Your task to perform on an android device: turn on javascript in the chrome app Image 0: 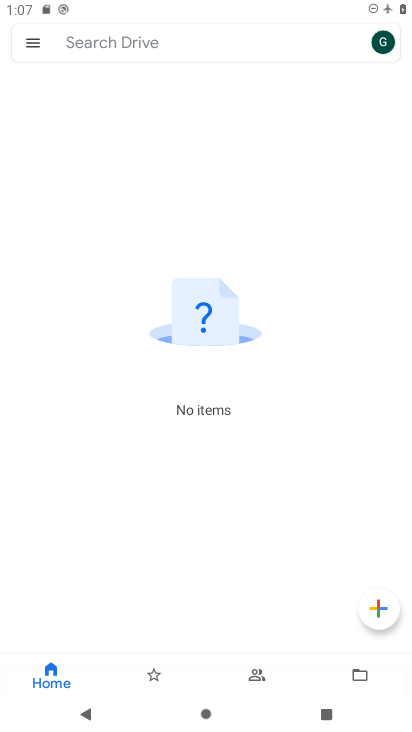
Step 0: press home button
Your task to perform on an android device: turn on javascript in the chrome app Image 1: 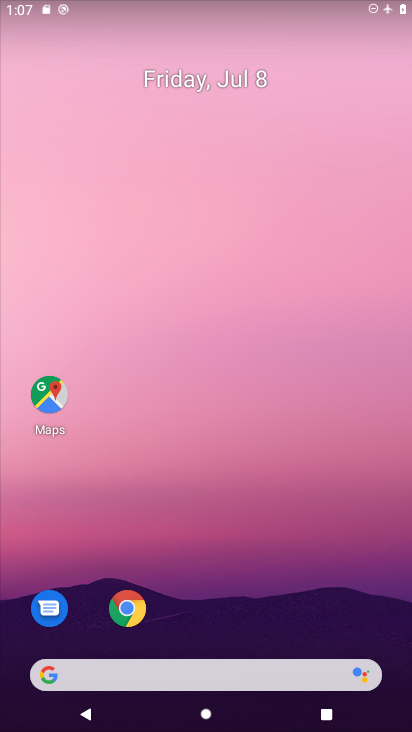
Step 1: click (147, 590)
Your task to perform on an android device: turn on javascript in the chrome app Image 2: 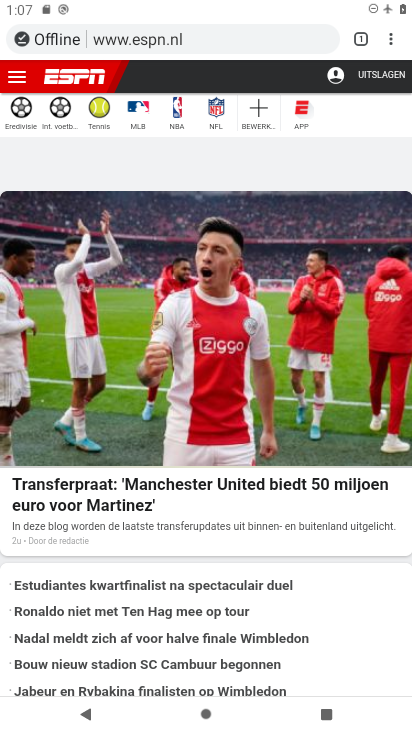
Step 2: click (386, 40)
Your task to perform on an android device: turn on javascript in the chrome app Image 3: 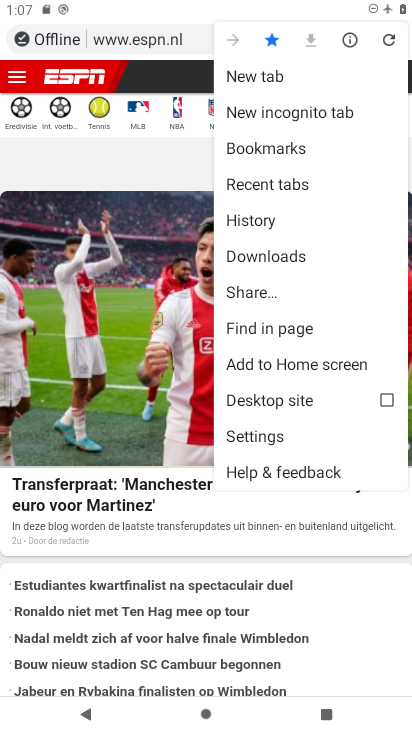
Step 3: click (278, 426)
Your task to perform on an android device: turn on javascript in the chrome app Image 4: 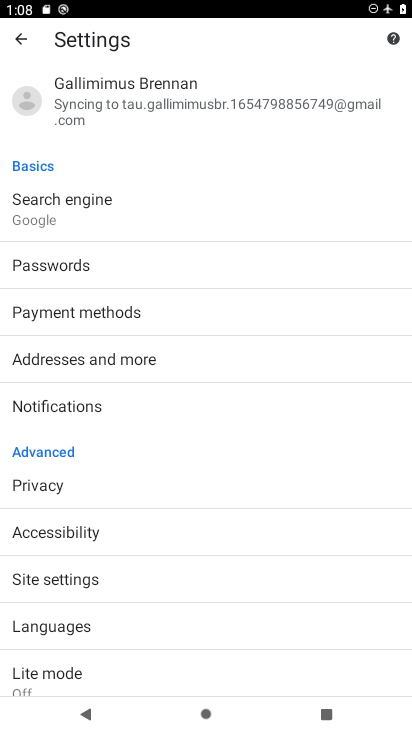
Step 4: drag from (153, 422) to (156, 281)
Your task to perform on an android device: turn on javascript in the chrome app Image 5: 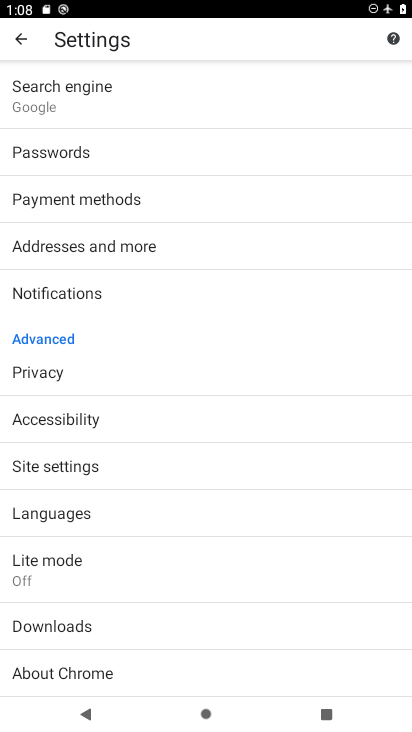
Step 5: click (155, 470)
Your task to perform on an android device: turn on javascript in the chrome app Image 6: 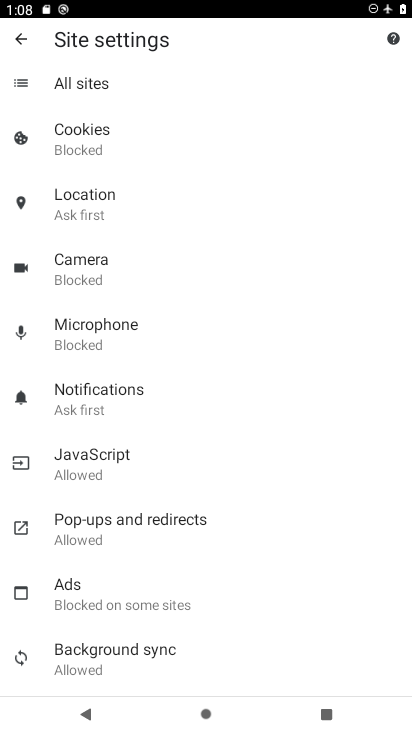
Step 6: click (85, 464)
Your task to perform on an android device: turn on javascript in the chrome app Image 7: 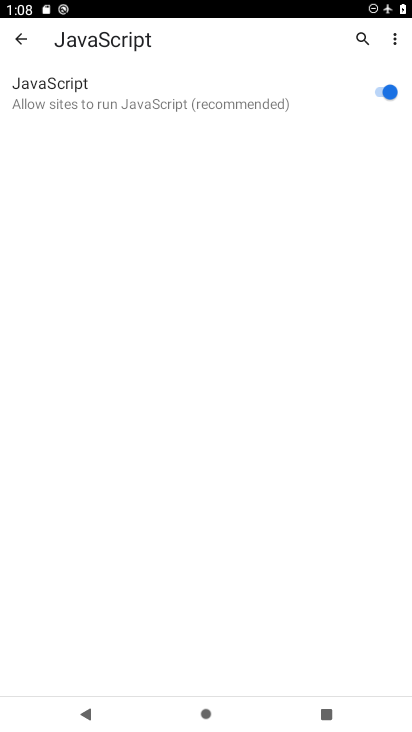
Step 7: click (385, 94)
Your task to perform on an android device: turn on javascript in the chrome app Image 8: 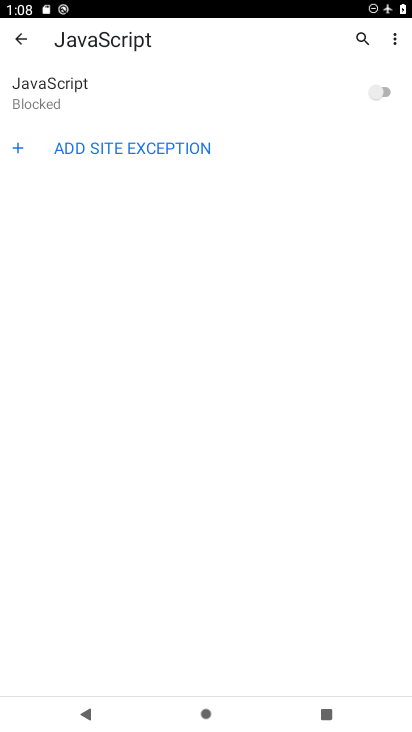
Step 8: task complete